Your task to perform on an android device: Go to accessibility settings Image 0: 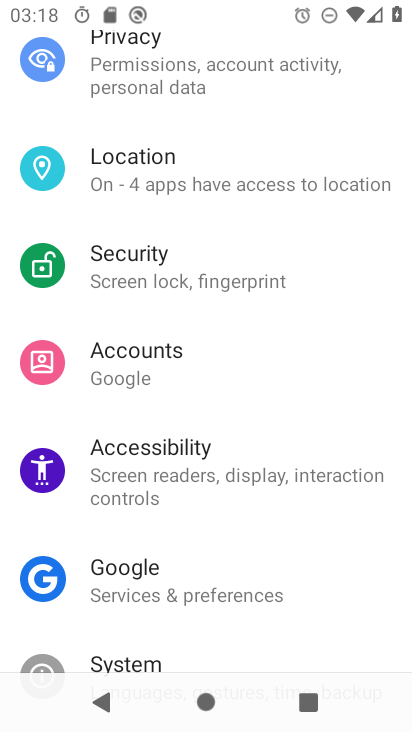
Step 0: drag from (251, 653) to (289, 370)
Your task to perform on an android device: Go to accessibility settings Image 1: 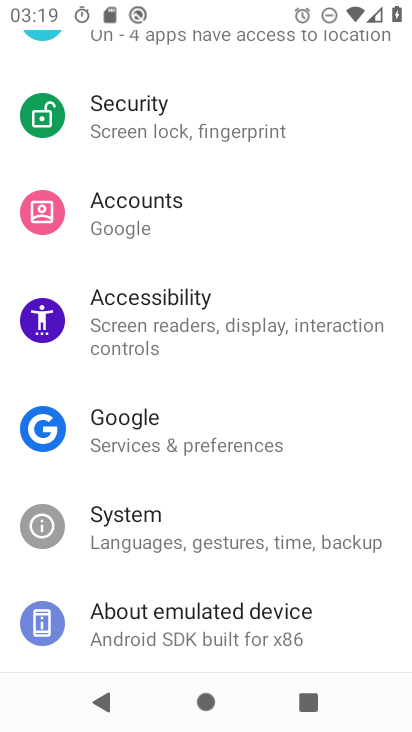
Step 1: click (157, 297)
Your task to perform on an android device: Go to accessibility settings Image 2: 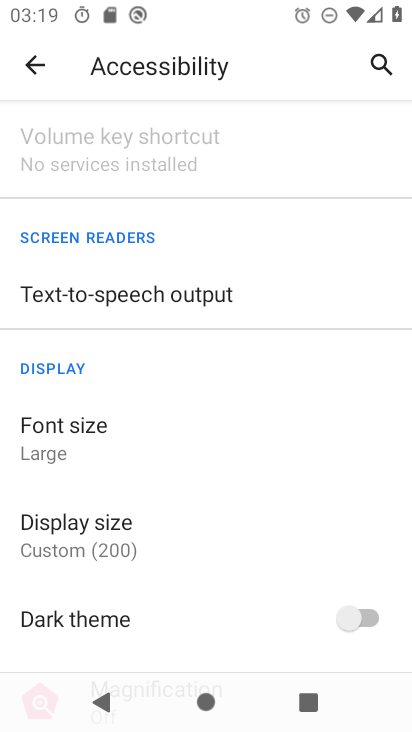
Step 2: task complete